Your task to perform on an android device: stop showing notifications on the lock screen Image 0: 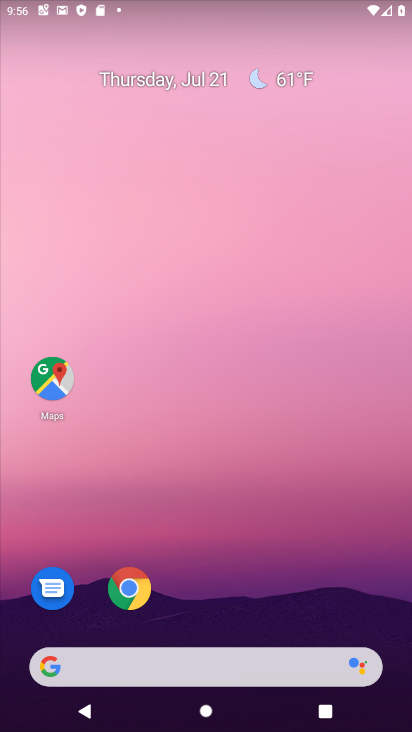
Step 0: drag from (213, 623) to (317, 8)
Your task to perform on an android device: stop showing notifications on the lock screen Image 1: 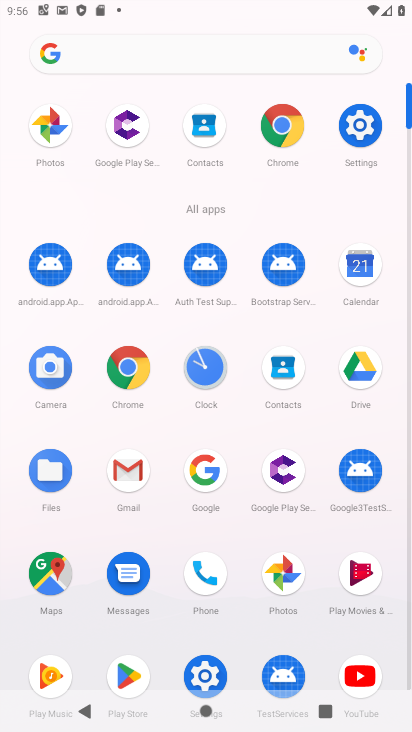
Step 1: click (352, 124)
Your task to perform on an android device: stop showing notifications on the lock screen Image 2: 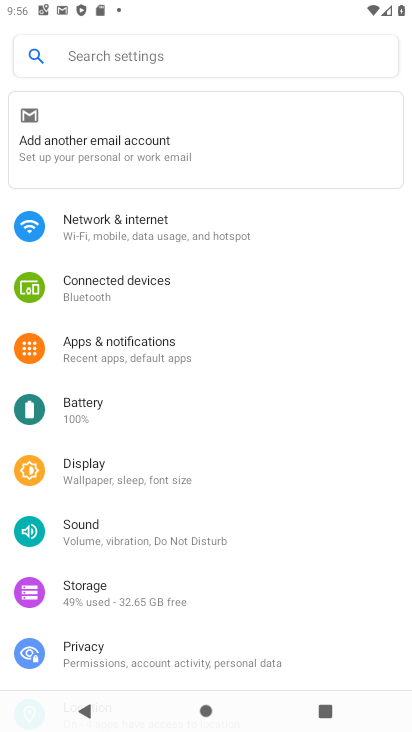
Step 2: click (111, 356)
Your task to perform on an android device: stop showing notifications on the lock screen Image 3: 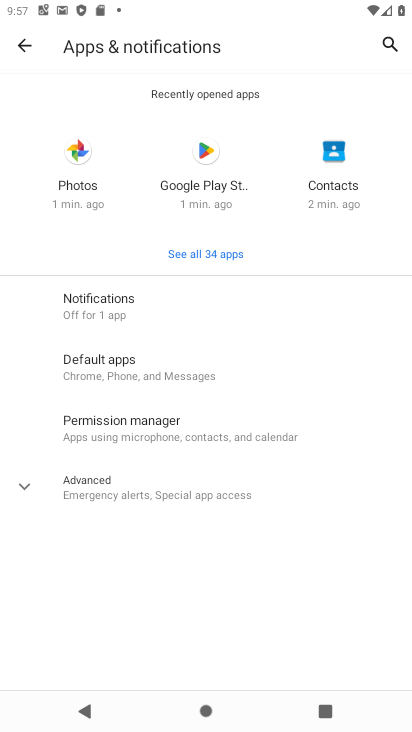
Step 3: click (157, 305)
Your task to perform on an android device: stop showing notifications on the lock screen Image 4: 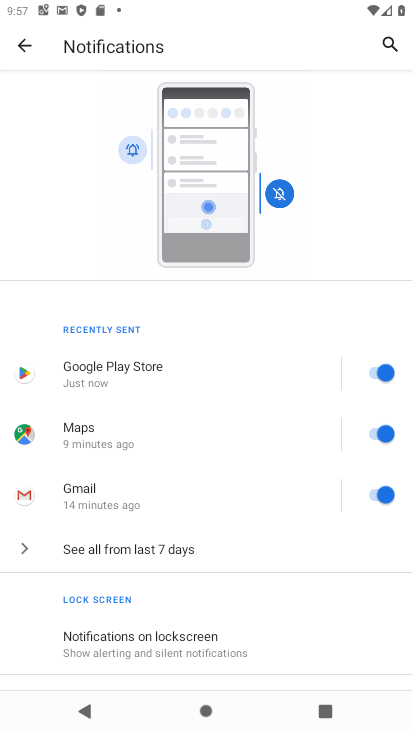
Step 4: click (146, 654)
Your task to perform on an android device: stop showing notifications on the lock screen Image 5: 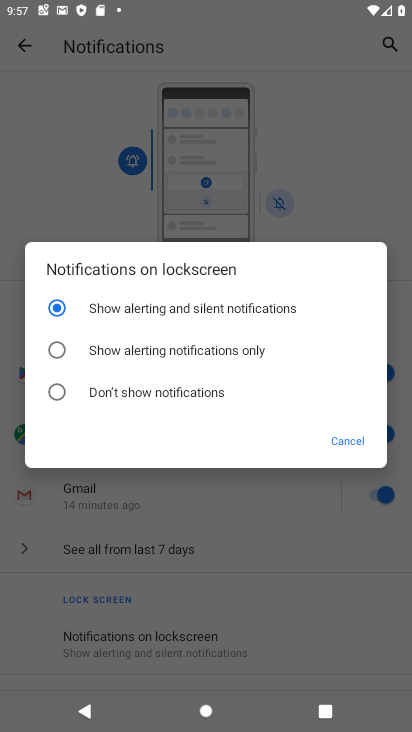
Step 5: click (63, 398)
Your task to perform on an android device: stop showing notifications on the lock screen Image 6: 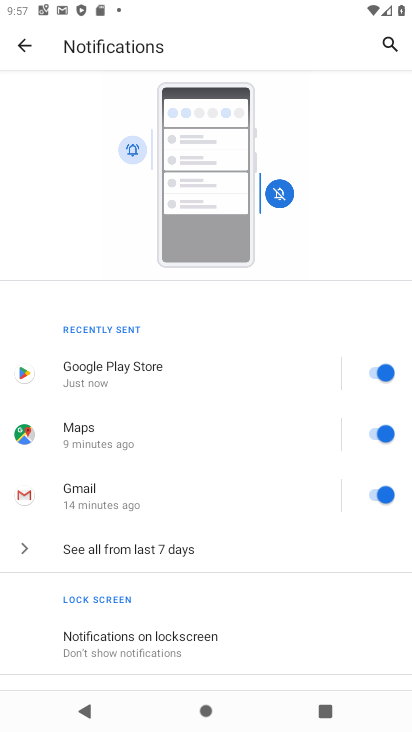
Step 6: task complete